Your task to perform on an android device: What's the weather going to be this weekend? Image 0: 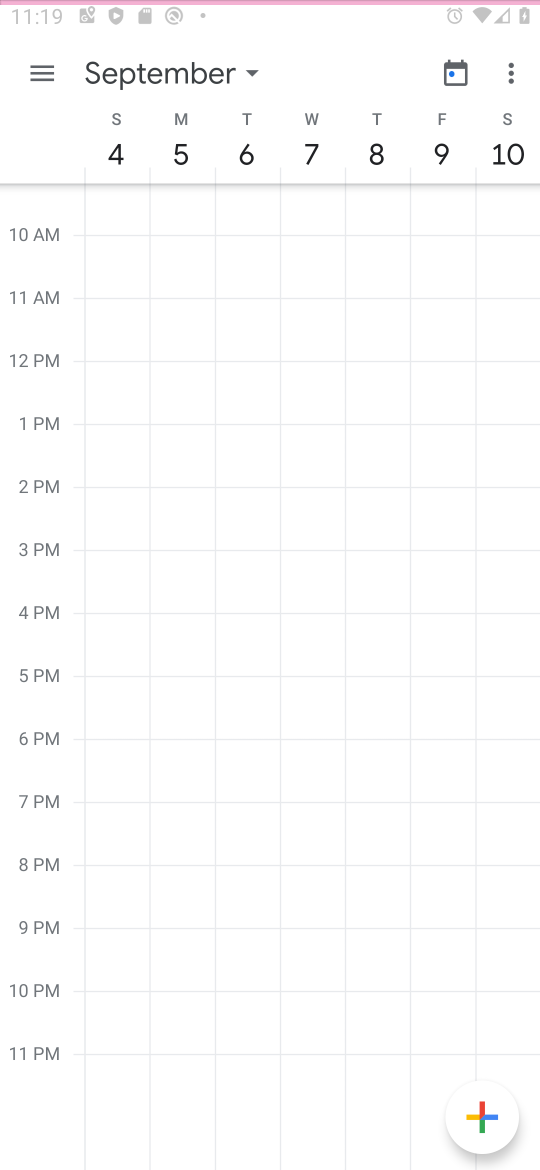
Step 0: press back button
Your task to perform on an android device: What's the weather going to be this weekend? Image 1: 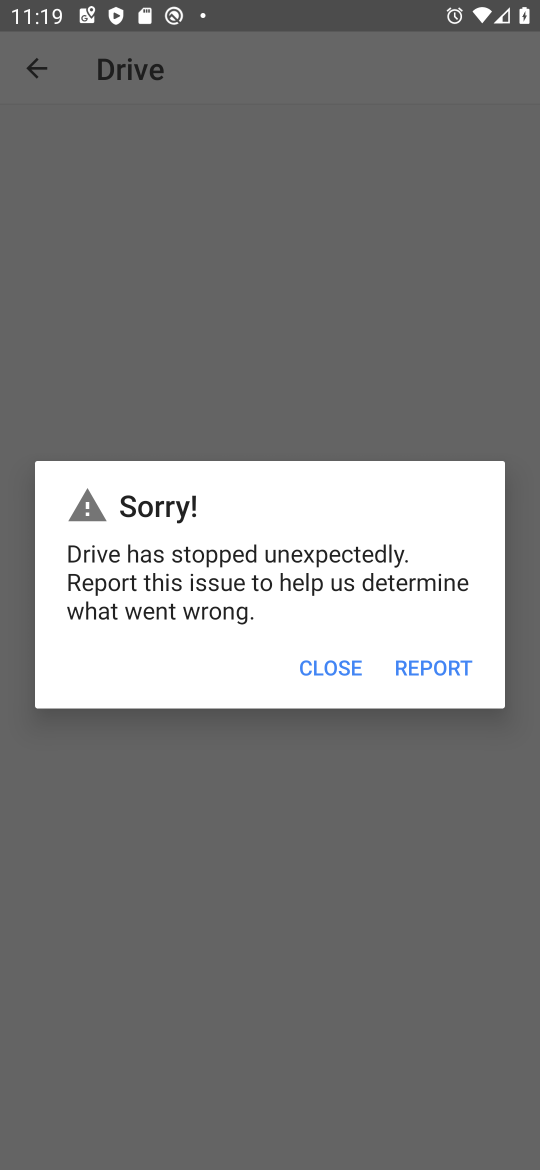
Step 1: press home button
Your task to perform on an android device: What's the weather going to be this weekend? Image 2: 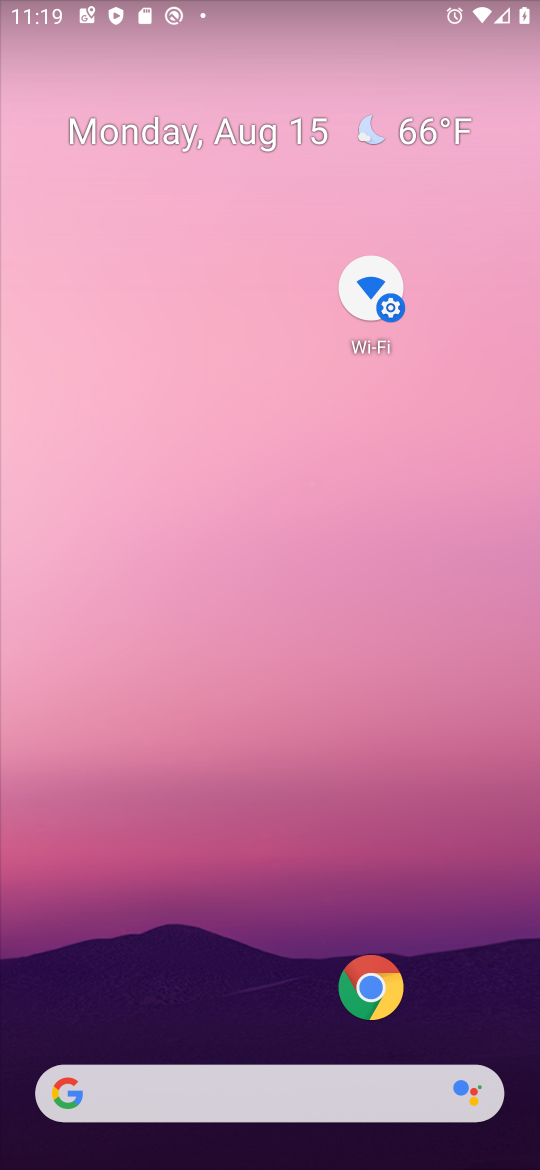
Step 2: drag from (312, 1053) to (469, 937)
Your task to perform on an android device: What's the weather going to be this weekend? Image 3: 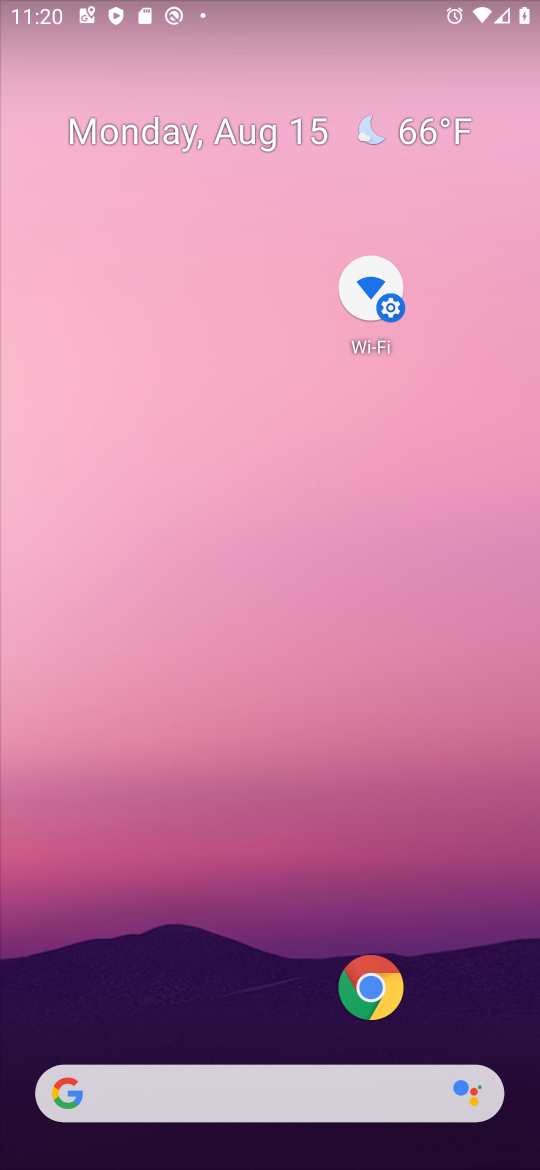
Step 3: click (285, 1081)
Your task to perform on an android device: What's the weather going to be this weekend? Image 4: 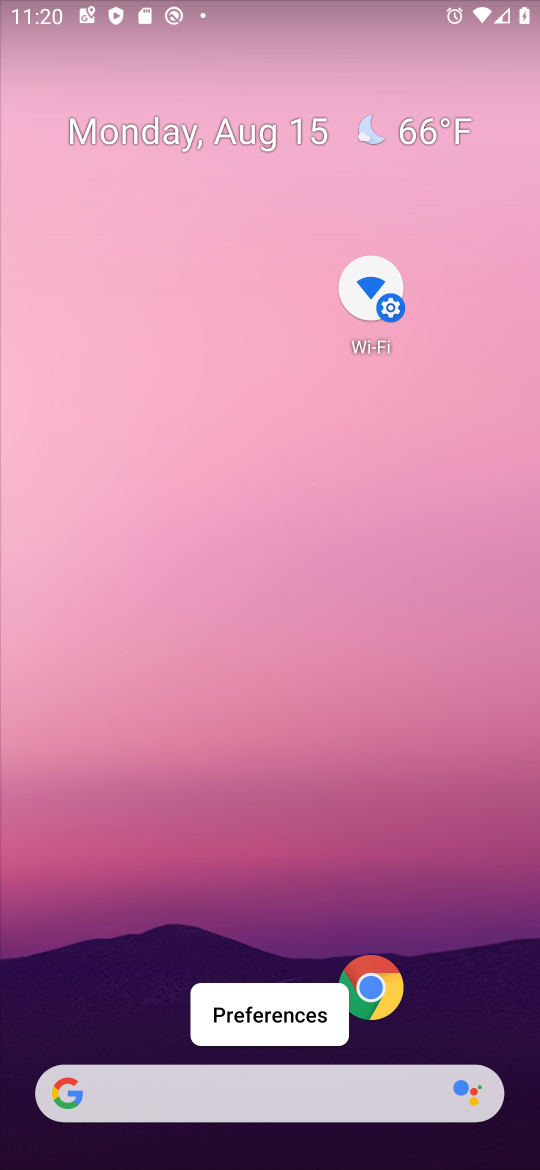
Step 4: click (362, 1081)
Your task to perform on an android device: What's the weather going to be this weekend? Image 5: 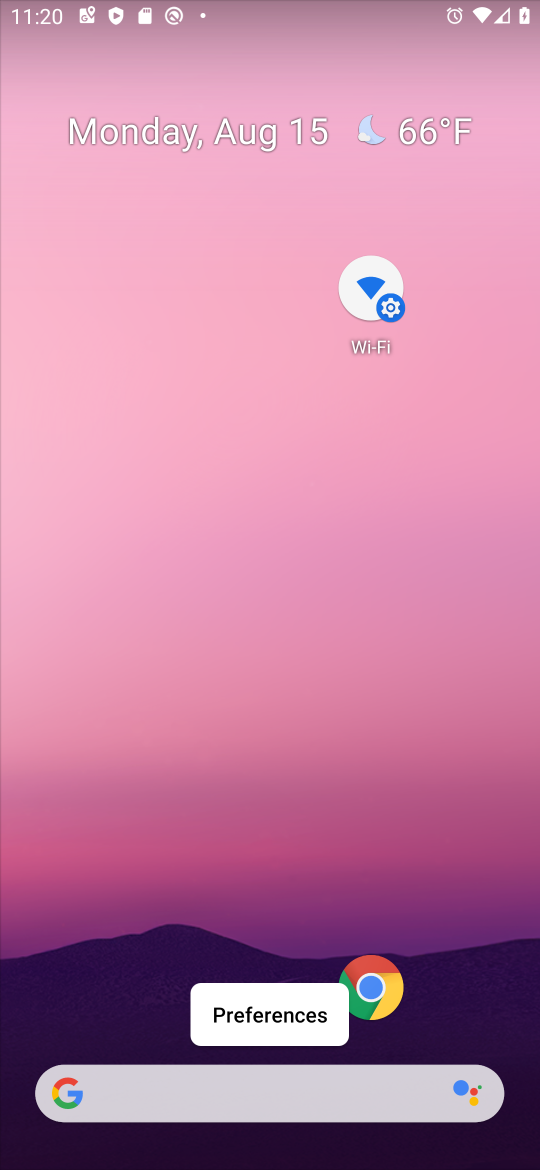
Step 5: click (364, 1081)
Your task to perform on an android device: What's the weather going to be this weekend? Image 6: 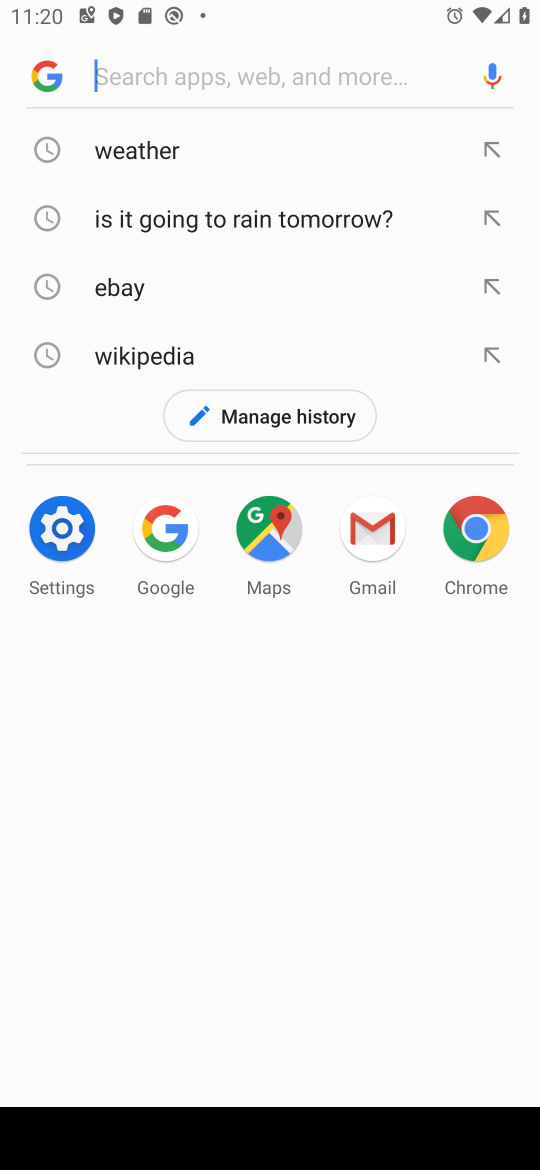
Step 6: click (107, 131)
Your task to perform on an android device: What's the weather going to be this weekend? Image 7: 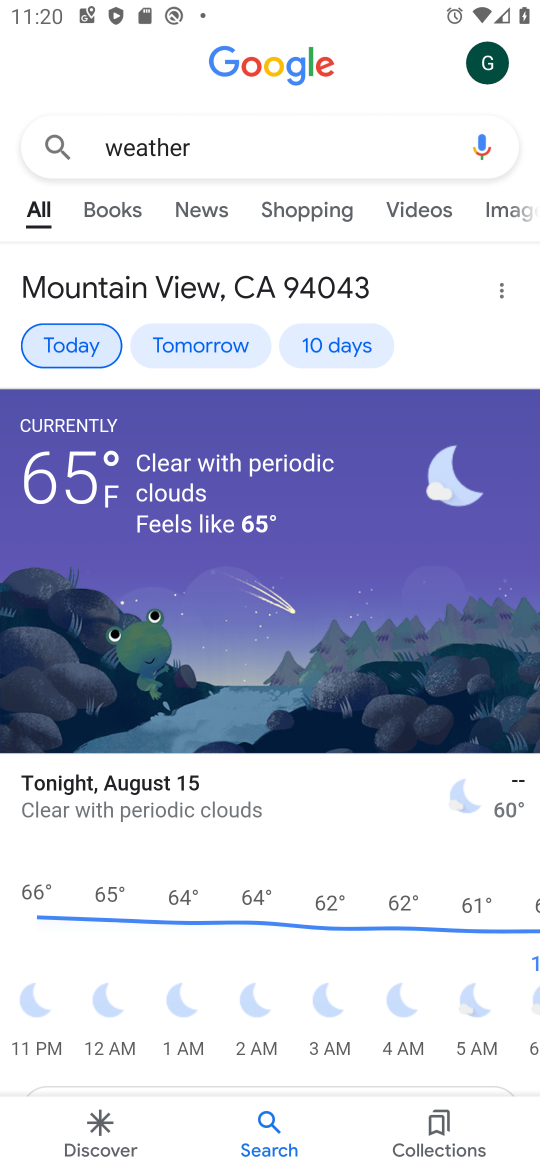
Step 7: click (366, 353)
Your task to perform on an android device: What's the weather going to be this weekend? Image 8: 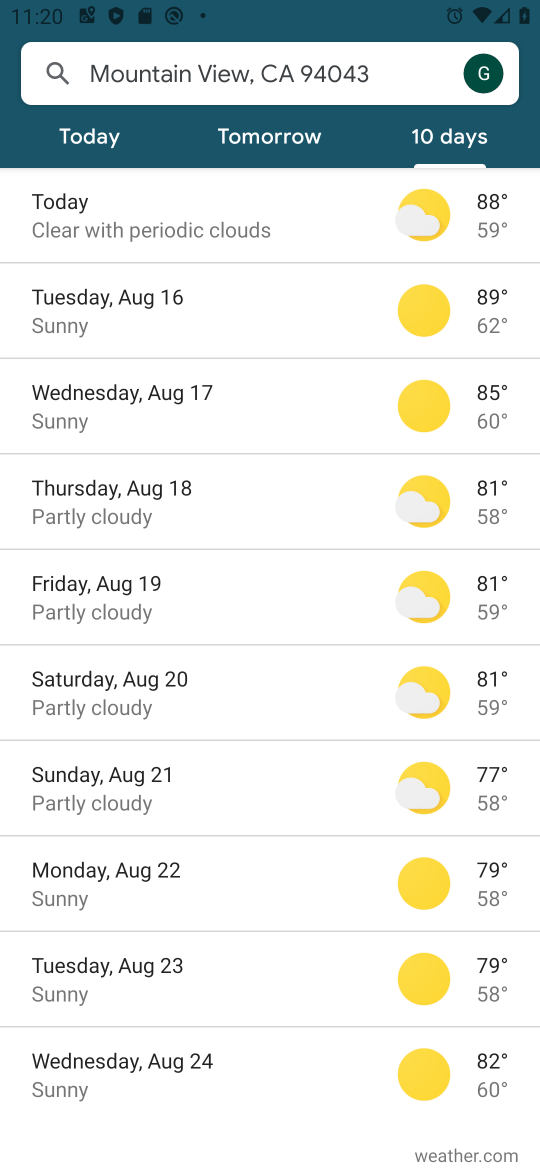
Step 8: task complete